Your task to perform on an android device: Go to Google maps Image 0: 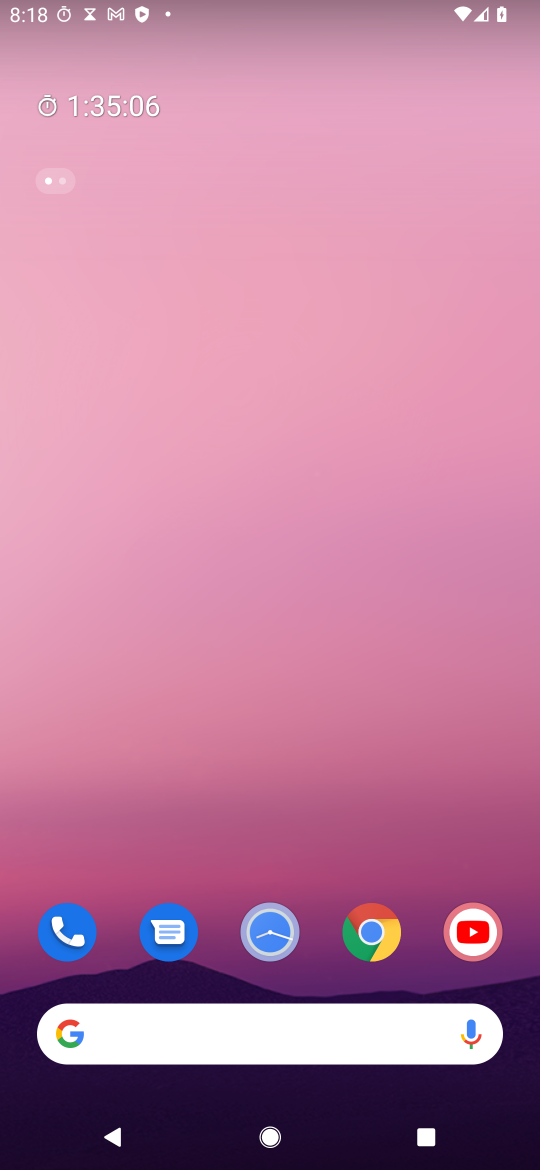
Step 0: drag from (278, 806) to (386, 62)
Your task to perform on an android device: Go to Google maps Image 1: 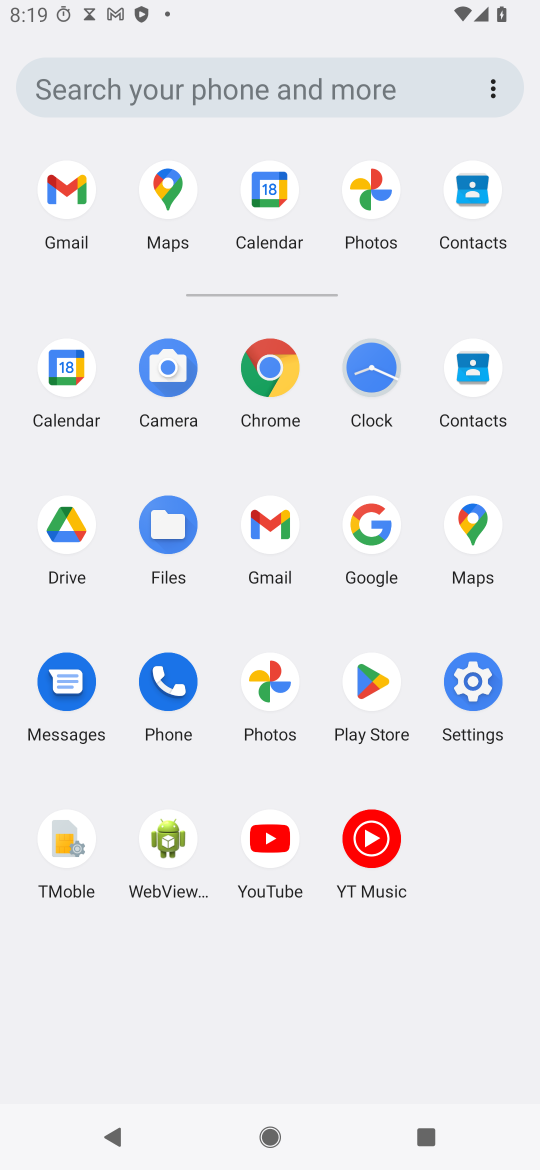
Step 1: click (471, 520)
Your task to perform on an android device: Go to Google maps Image 2: 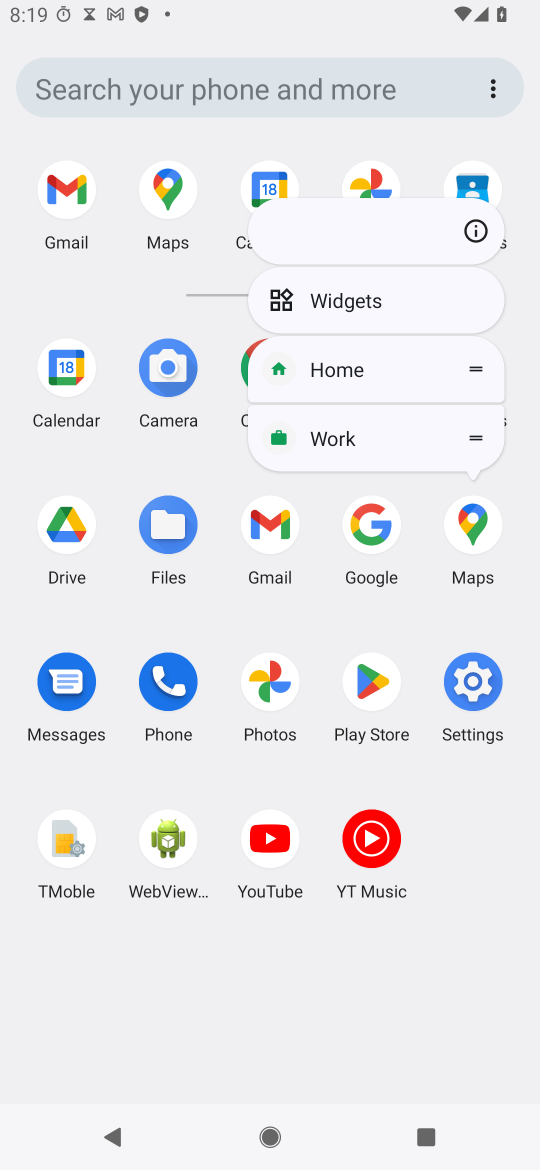
Step 2: click (477, 532)
Your task to perform on an android device: Go to Google maps Image 3: 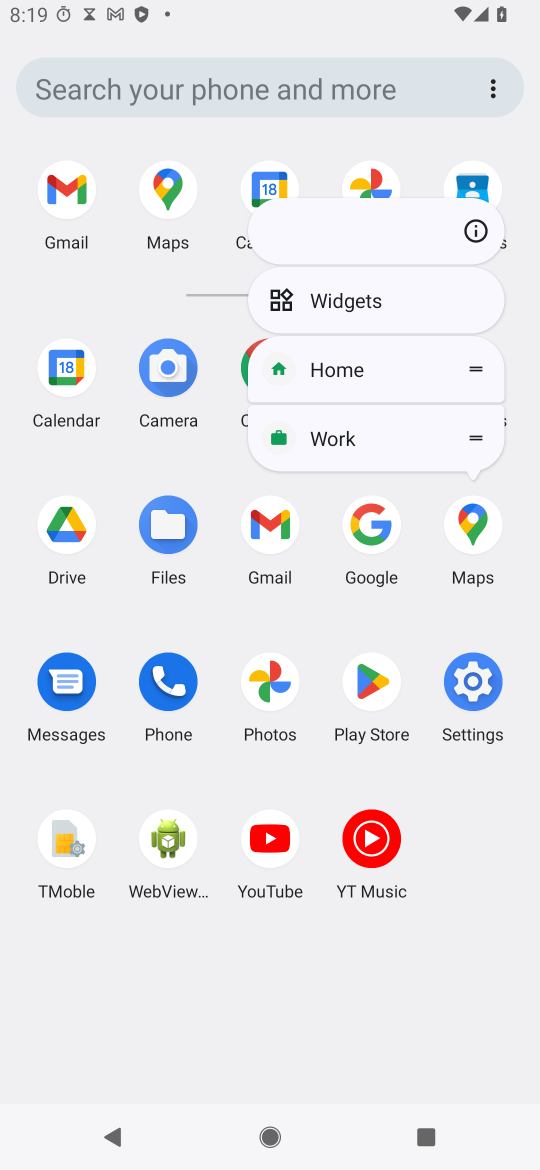
Step 3: click (477, 532)
Your task to perform on an android device: Go to Google maps Image 4: 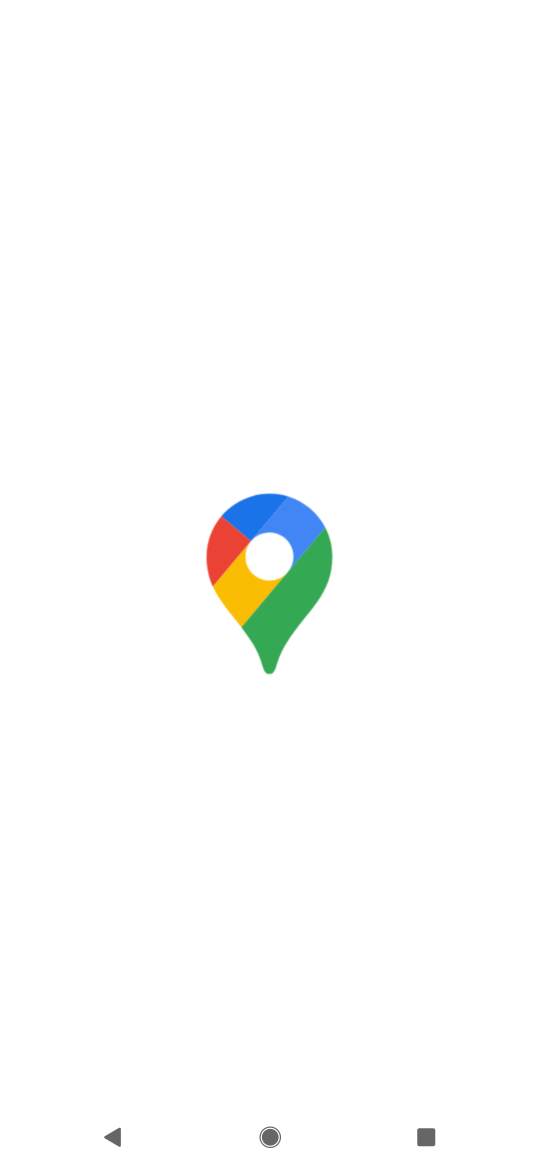
Step 4: task complete